Your task to perform on an android device: Show me popular games on the Play Store Image 0: 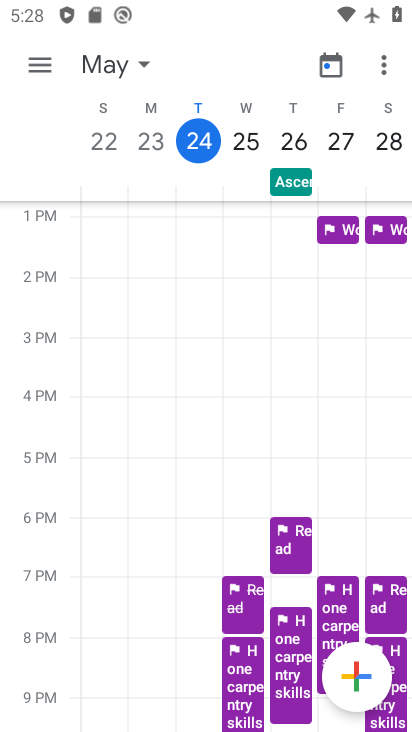
Step 0: press home button
Your task to perform on an android device: Show me popular games on the Play Store Image 1: 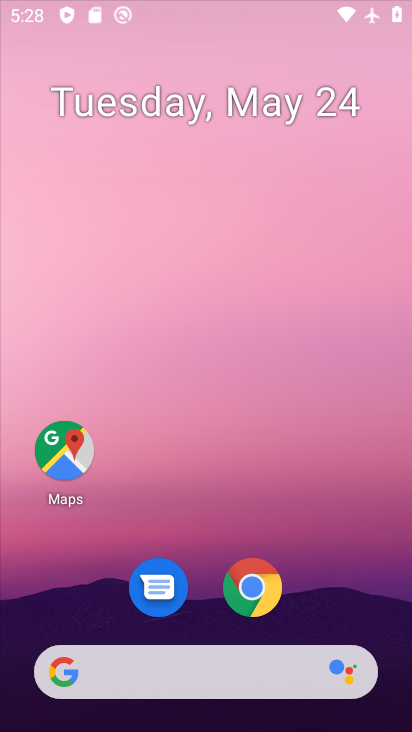
Step 1: drag from (345, 566) to (271, 138)
Your task to perform on an android device: Show me popular games on the Play Store Image 2: 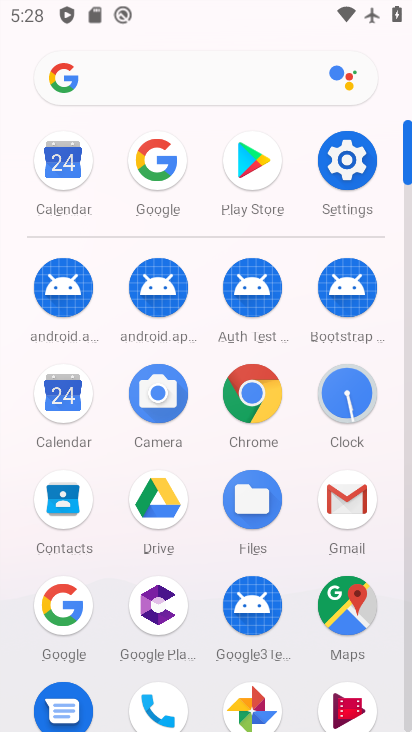
Step 2: drag from (200, 640) to (168, 217)
Your task to perform on an android device: Show me popular games on the Play Store Image 3: 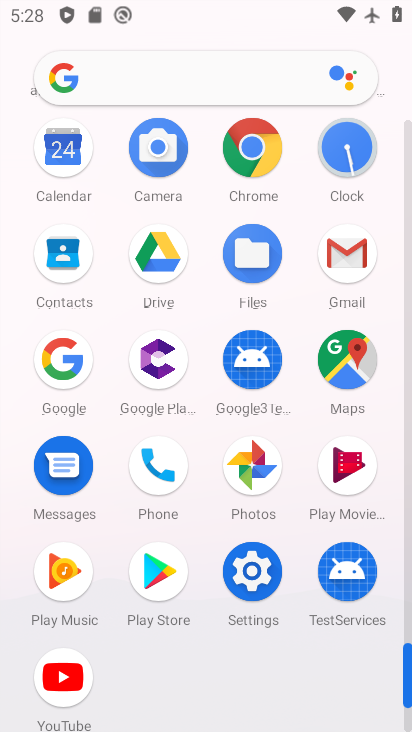
Step 3: click (161, 561)
Your task to perform on an android device: Show me popular games on the Play Store Image 4: 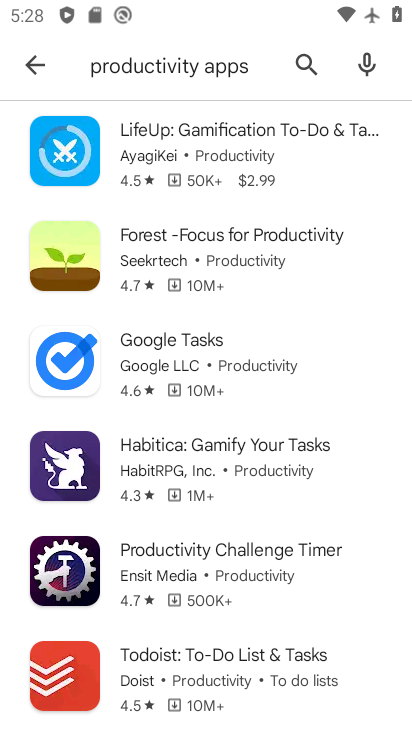
Step 4: click (35, 69)
Your task to perform on an android device: Show me popular games on the Play Store Image 5: 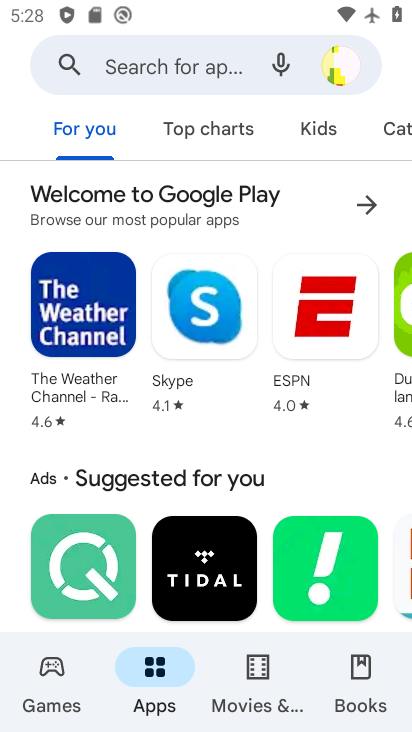
Step 5: click (30, 695)
Your task to perform on an android device: Show me popular games on the Play Store Image 6: 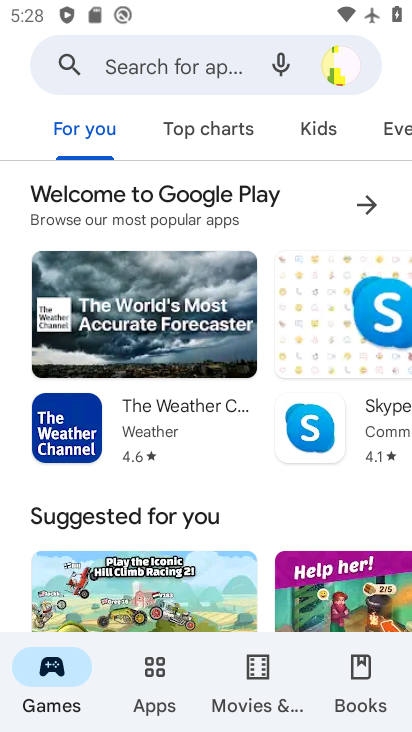
Step 6: click (195, 130)
Your task to perform on an android device: Show me popular games on the Play Store Image 7: 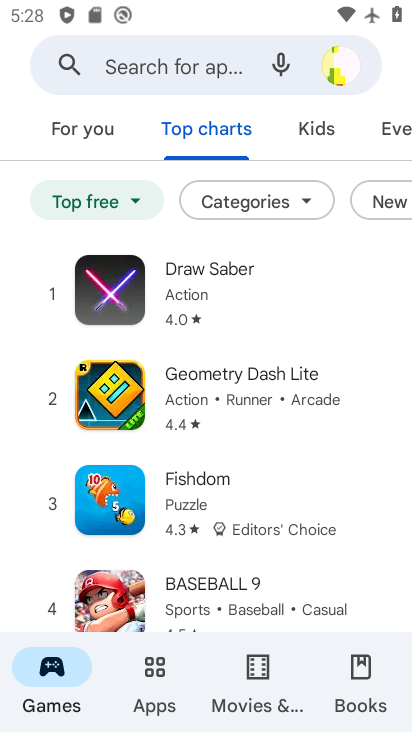
Step 7: task complete